Your task to perform on an android device: Show me productivity apps on the Play Store Image 0: 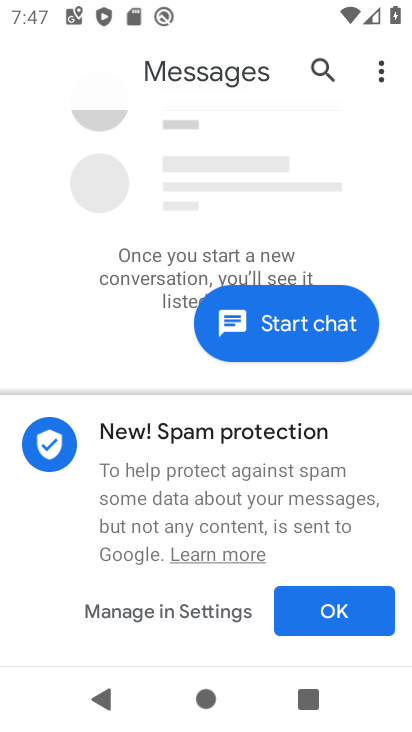
Step 0: press home button
Your task to perform on an android device: Show me productivity apps on the Play Store Image 1: 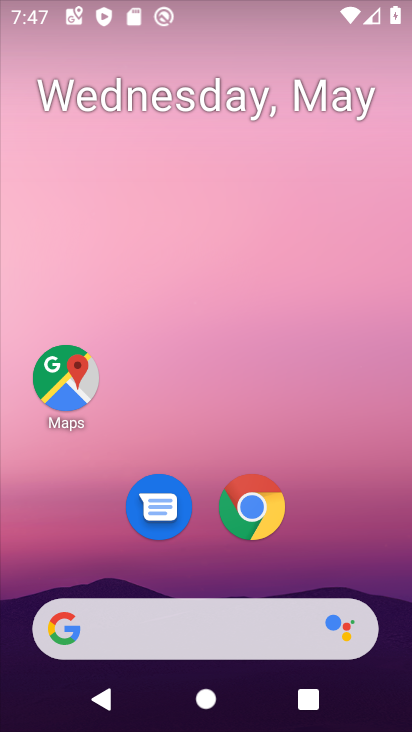
Step 1: drag from (154, 553) to (151, 204)
Your task to perform on an android device: Show me productivity apps on the Play Store Image 2: 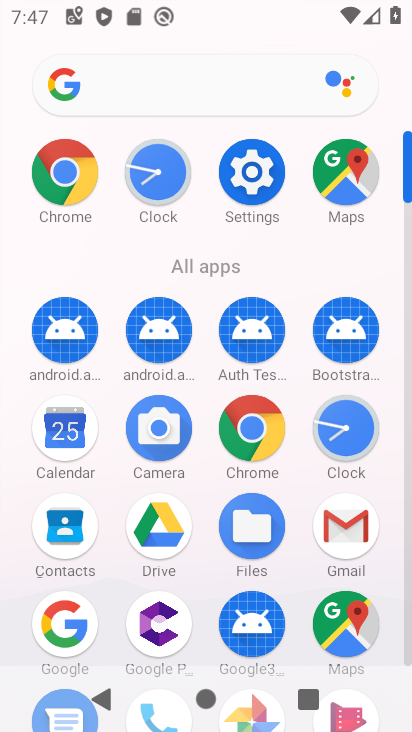
Step 2: drag from (209, 590) to (208, 341)
Your task to perform on an android device: Show me productivity apps on the Play Store Image 3: 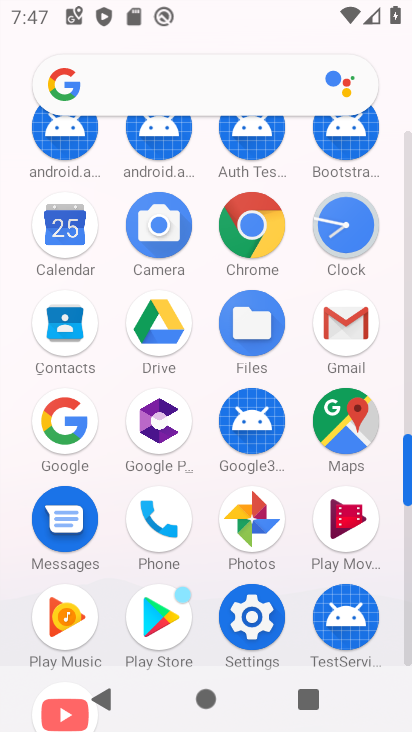
Step 3: click (150, 619)
Your task to perform on an android device: Show me productivity apps on the Play Store Image 4: 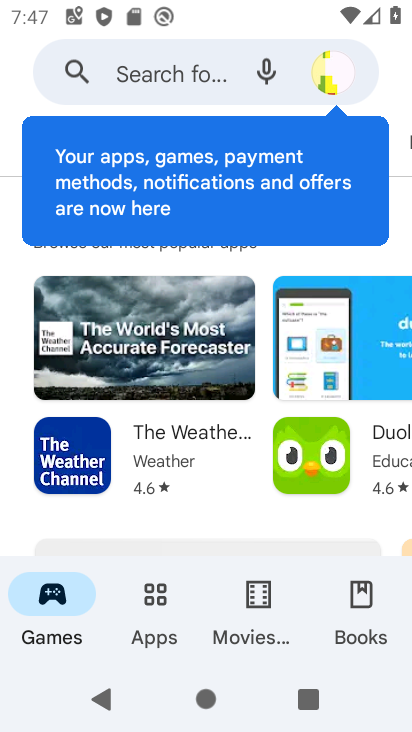
Step 4: click (150, 619)
Your task to perform on an android device: Show me productivity apps on the Play Store Image 5: 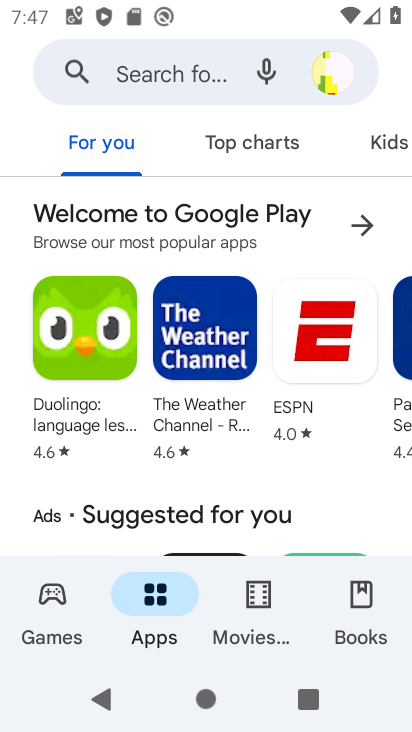
Step 5: task complete